Your task to perform on an android device: What's the weather going to be tomorrow? Image 0: 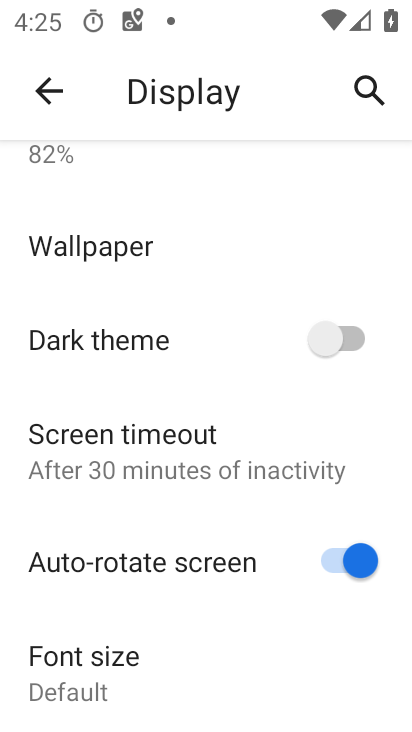
Step 0: press home button
Your task to perform on an android device: What's the weather going to be tomorrow? Image 1: 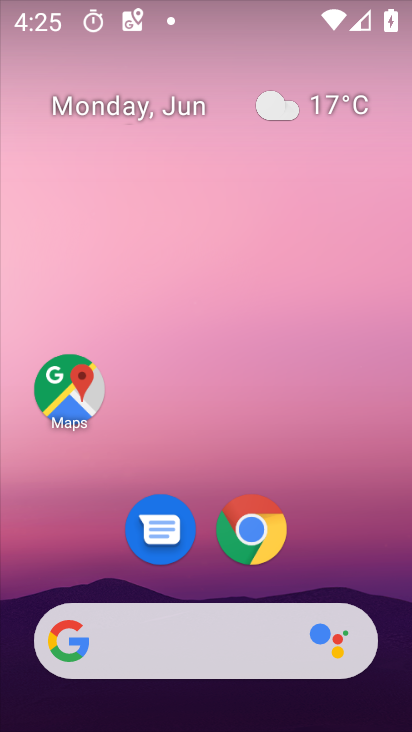
Step 1: drag from (344, 551) to (226, 47)
Your task to perform on an android device: What's the weather going to be tomorrow? Image 2: 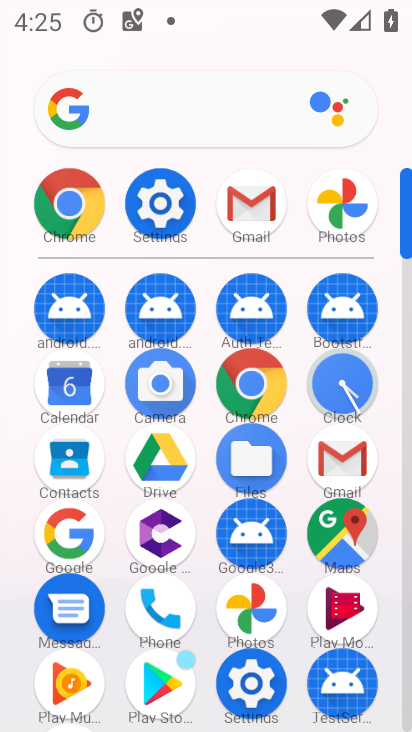
Step 2: click (62, 527)
Your task to perform on an android device: What's the weather going to be tomorrow? Image 3: 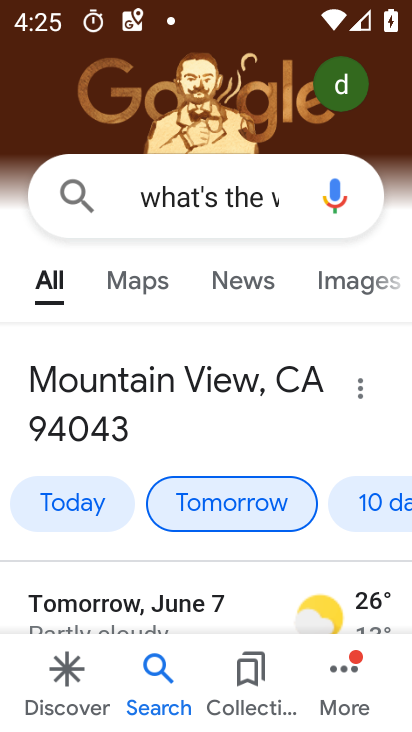
Step 3: task complete